Your task to perform on an android device: Search for flights from Chicago to London Image 0: 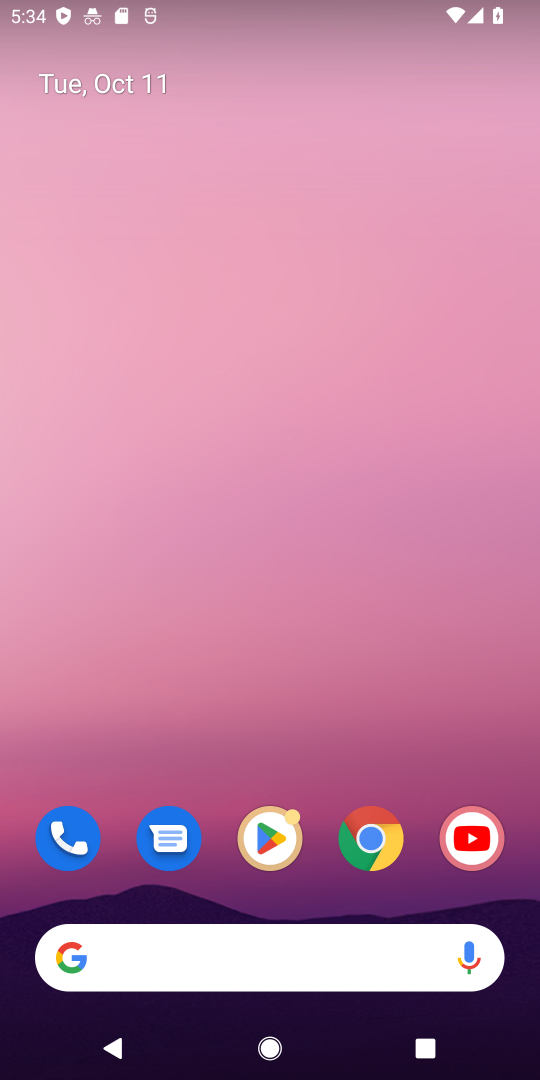
Step 0: click (378, 842)
Your task to perform on an android device: Search for flights from Chicago to London Image 1: 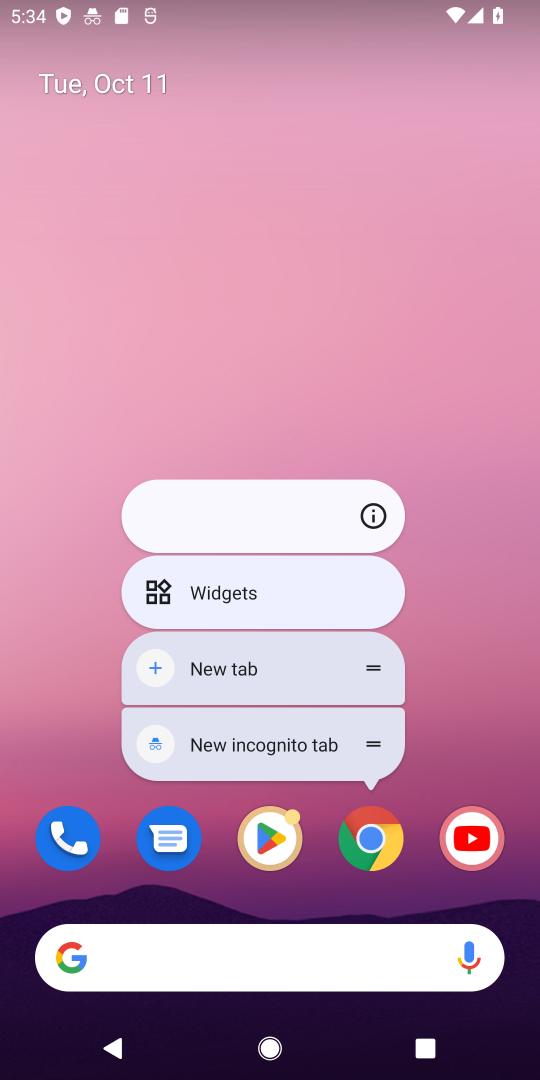
Step 1: click (387, 840)
Your task to perform on an android device: Search for flights from Chicago to London Image 2: 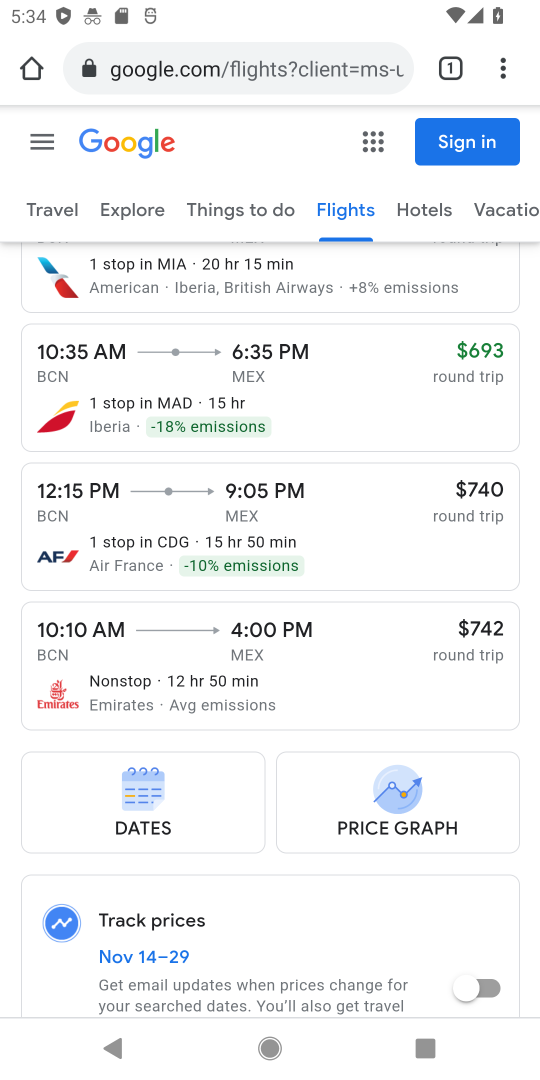
Step 2: click (199, 60)
Your task to perform on an android device: Search for flights from Chicago to London Image 3: 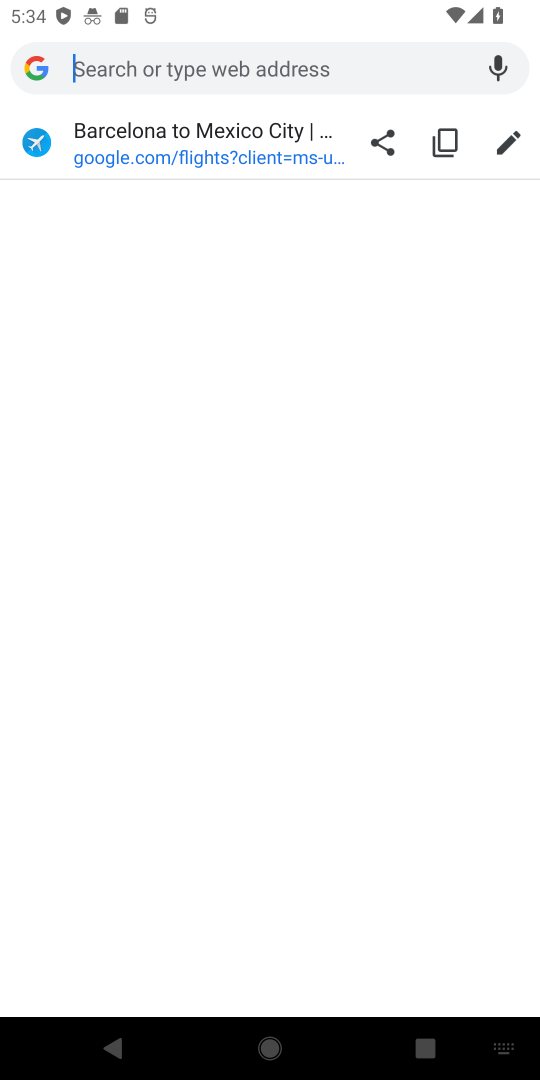
Step 3: type "flights from Chicago to London"
Your task to perform on an android device: Search for flights from Chicago to London Image 4: 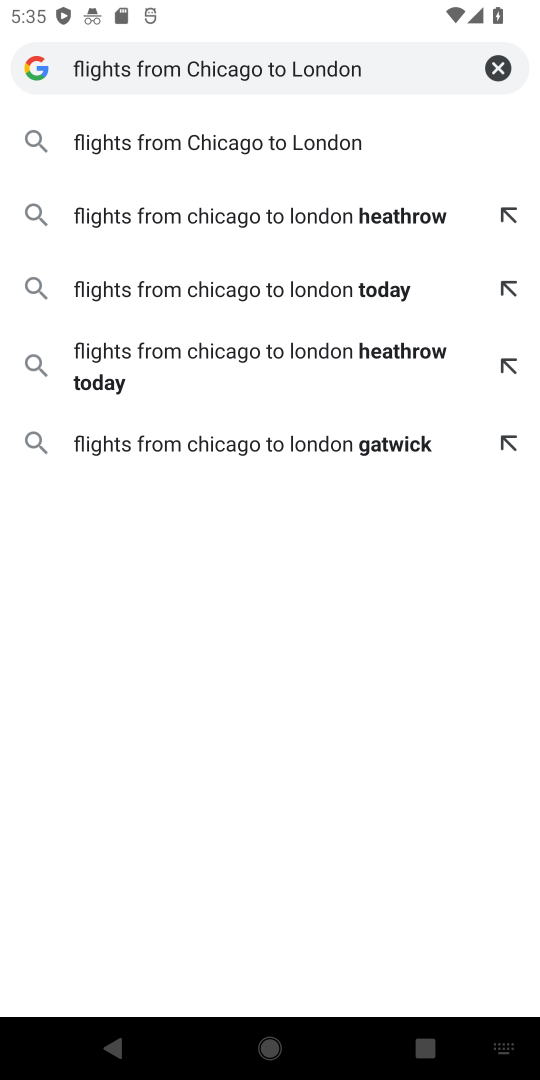
Step 4: click (271, 143)
Your task to perform on an android device: Search for flights from Chicago to London Image 5: 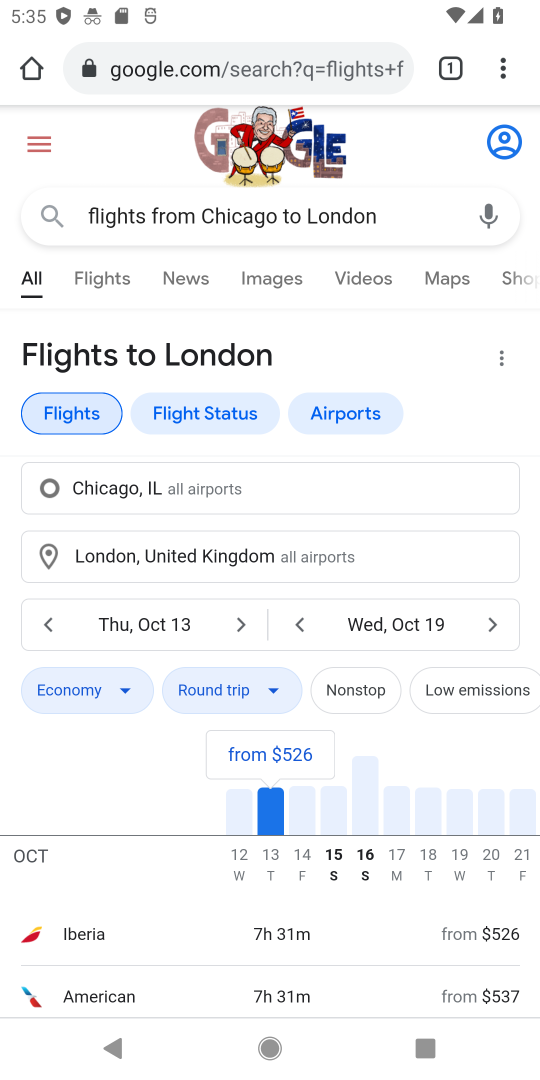
Step 5: drag from (436, 494) to (387, 328)
Your task to perform on an android device: Search for flights from Chicago to London Image 6: 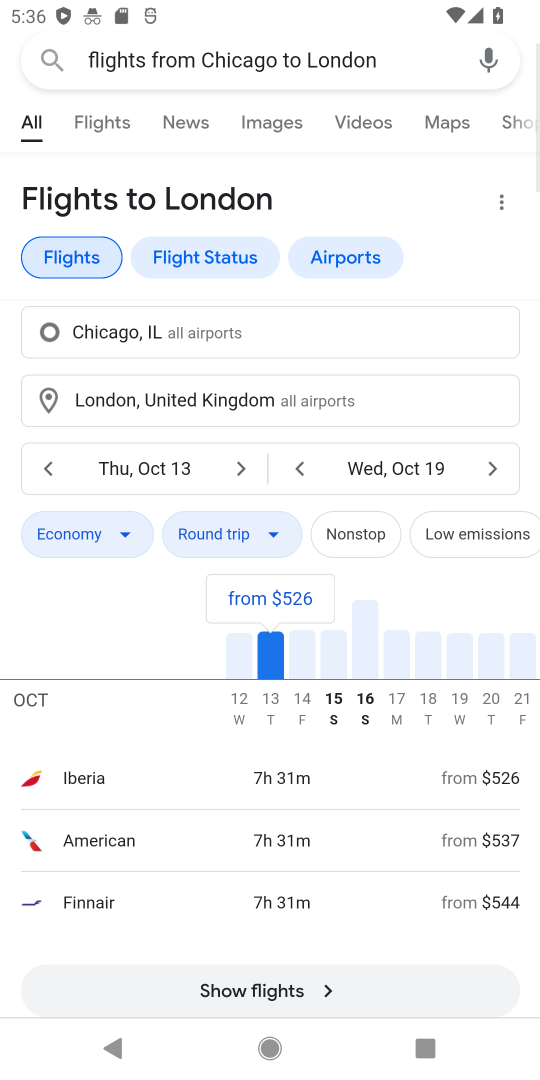
Step 6: drag from (374, 728) to (270, 426)
Your task to perform on an android device: Search for flights from Chicago to London Image 7: 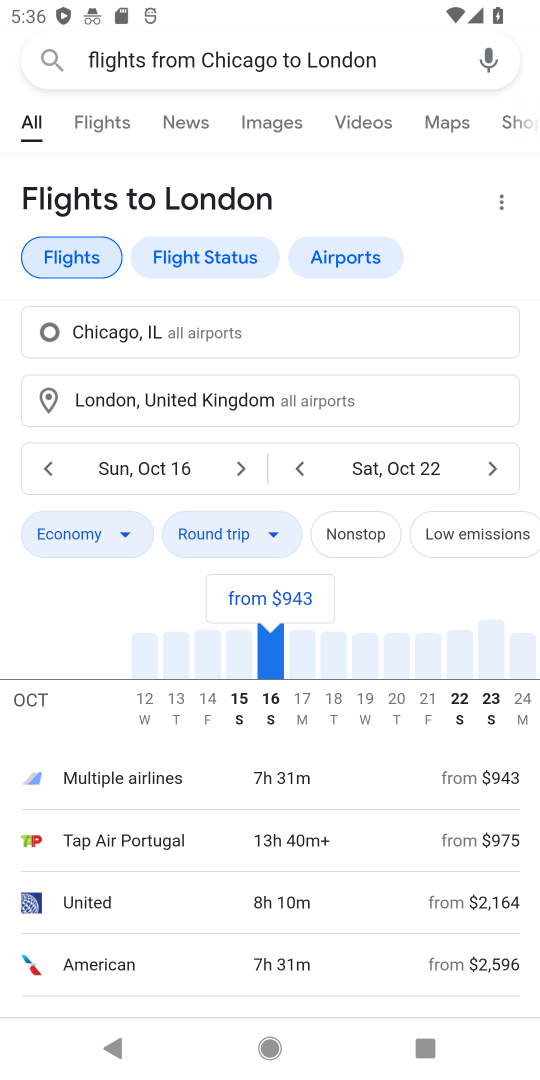
Step 7: drag from (98, 731) to (34, 408)
Your task to perform on an android device: Search for flights from Chicago to London Image 8: 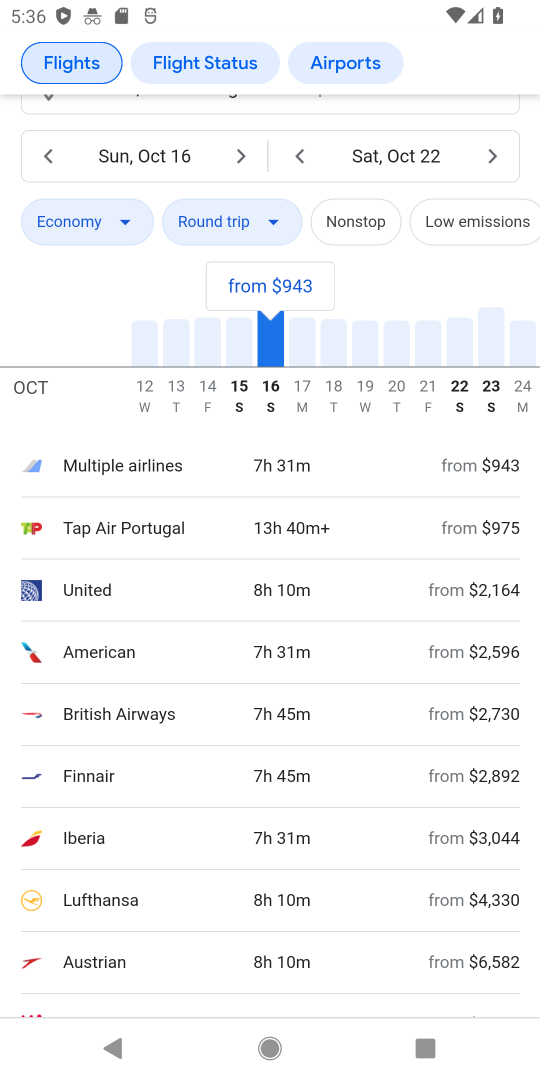
Step 8: drag from (142, 685) to (80, 272)
Your task to perform on an android device: Search for flights from Chicago to London Image 9: 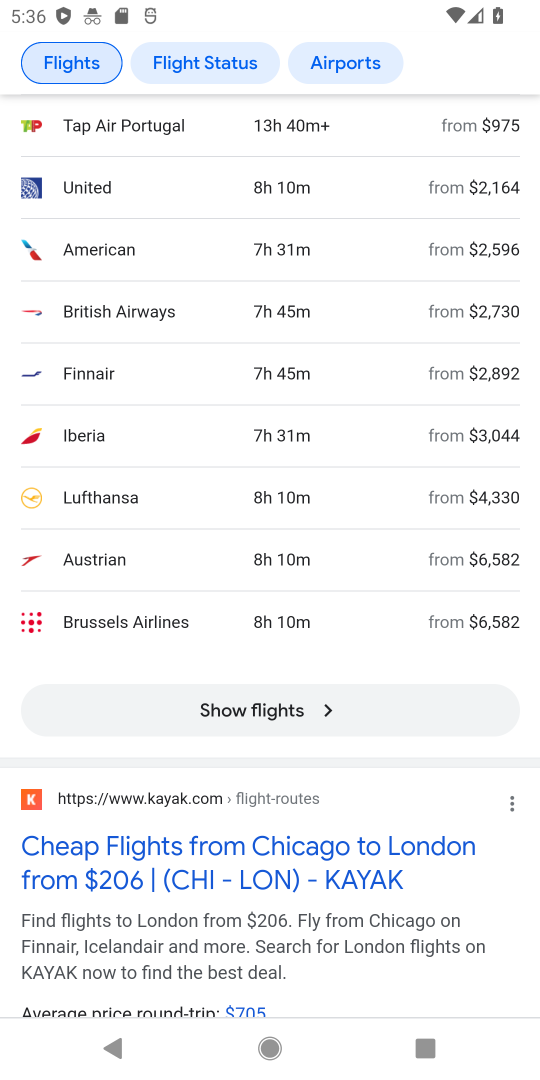
Step 9: click (245, 710)
Your task to perform on an android device: Search for flights from Chicago to London Image 10: 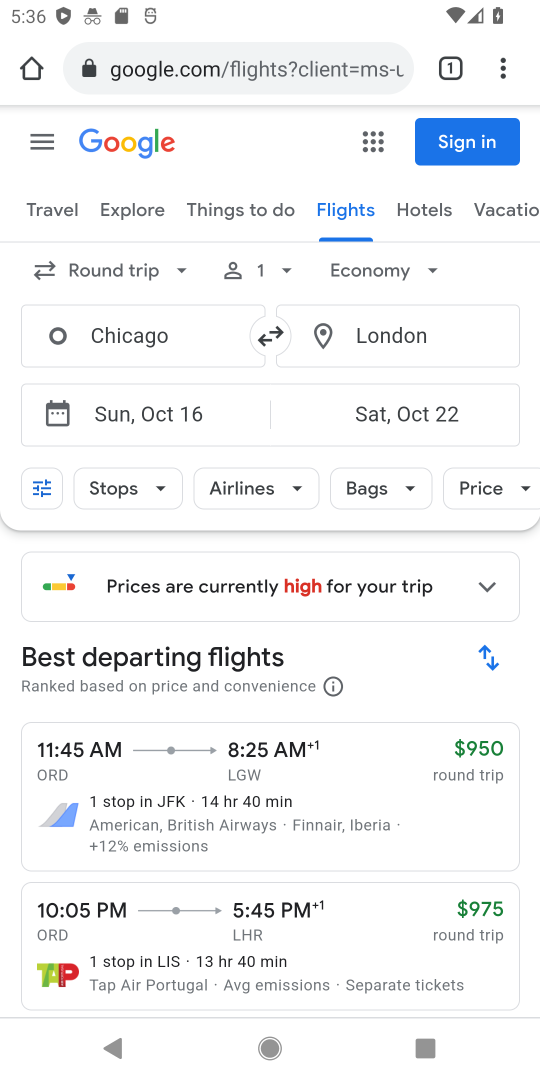
Step 10: task complete